Your task to perform on an android device: install app "LiveIn - Share Your Moment" Image 0: 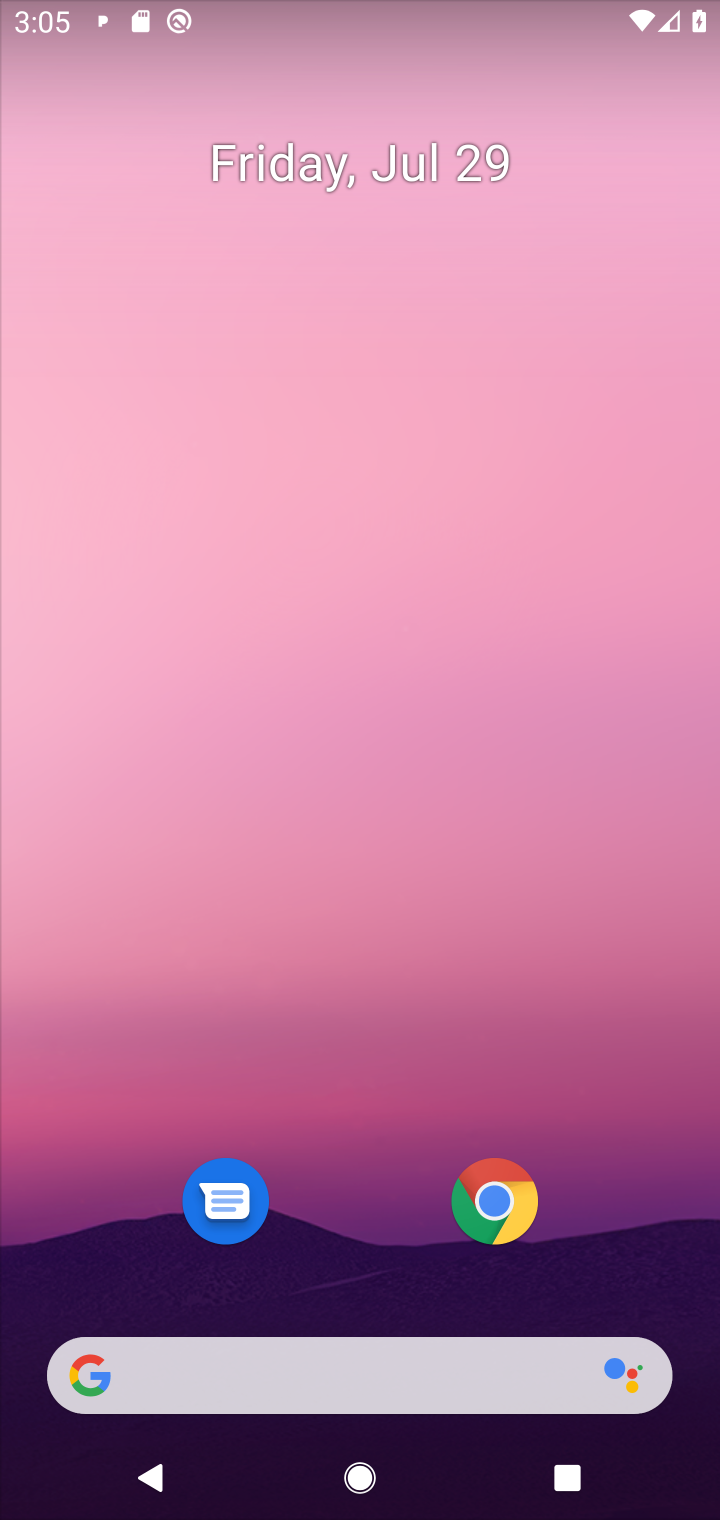
Step 0: drag from (404, 1112) to (394, 514)
Your task to perform on an android device: install app "LiveIn - Share Your Moment" Image 1: 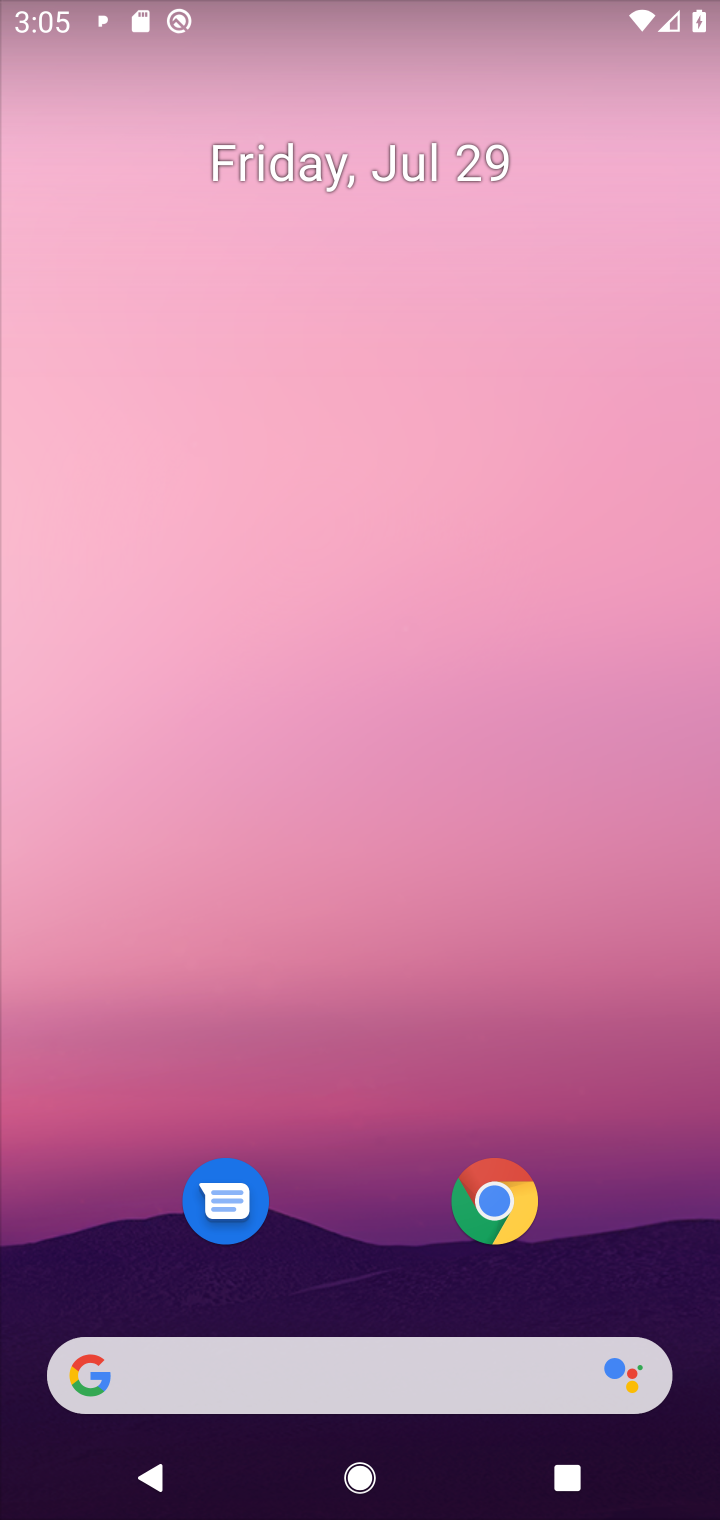
Step 1: drag from (479, 369) to (479, 298)
Your task to perform on an android device: install app "LiveIn - Share Your Moment" Image 2: 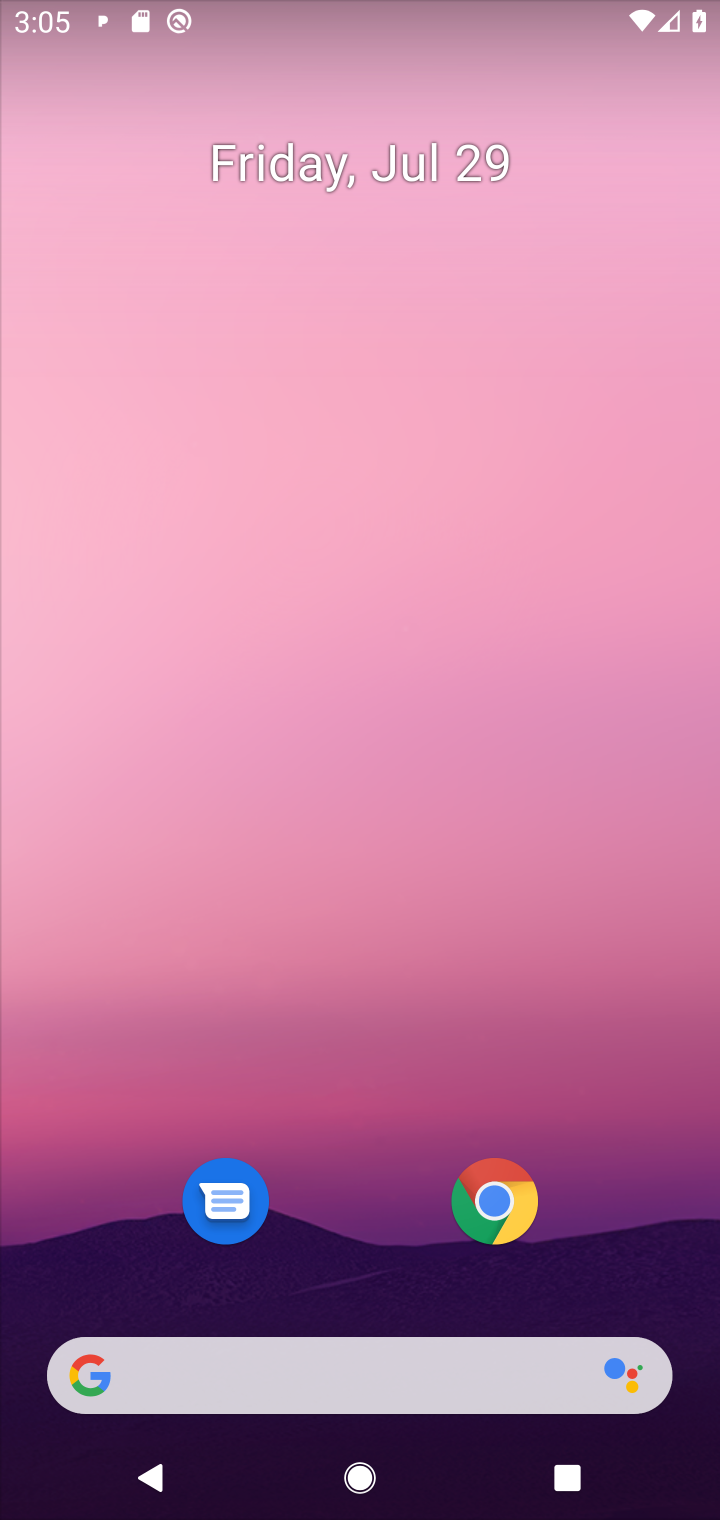
Step 2: drag from (440, 1026) to (410, 58)
Your task to perform on an android device: install app "LiveIn - Share Your Moment" Image 3: 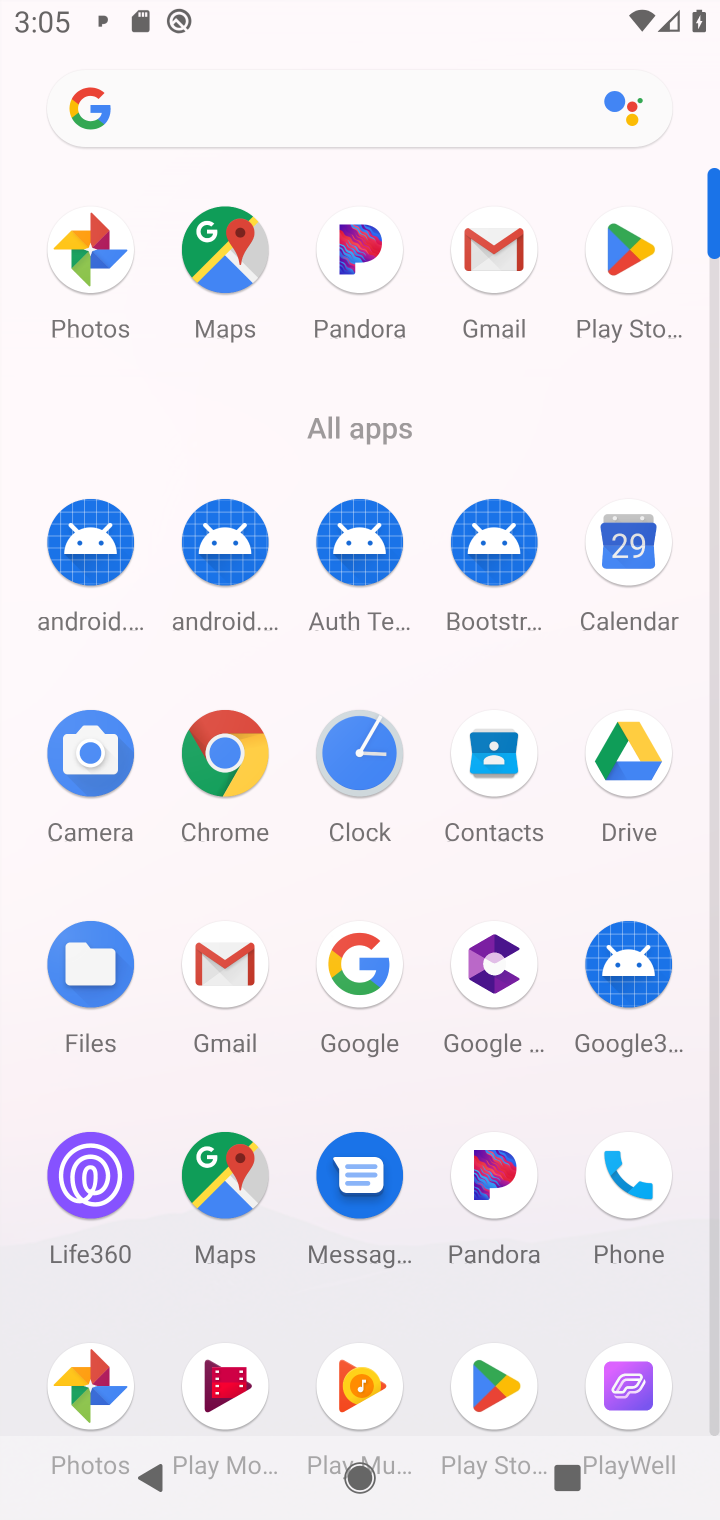
Step 3: click (616, 241)
Your task to perform on an android device: install app "LiveIn - Share Your Moment" Image 4: 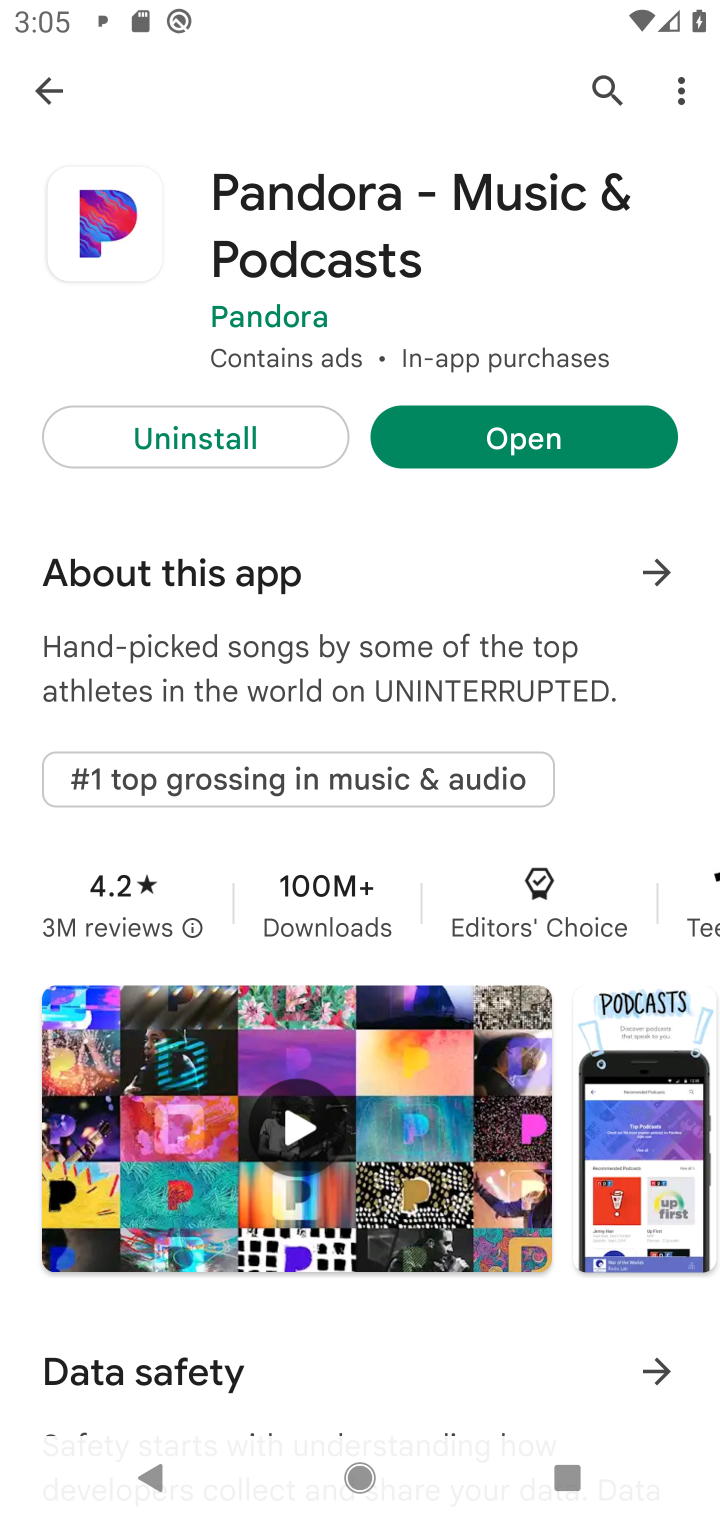
Step 4: click (594, 84)
Your task to perform on an android device: install app "LiveIn - Share Your Moment" Image 5: 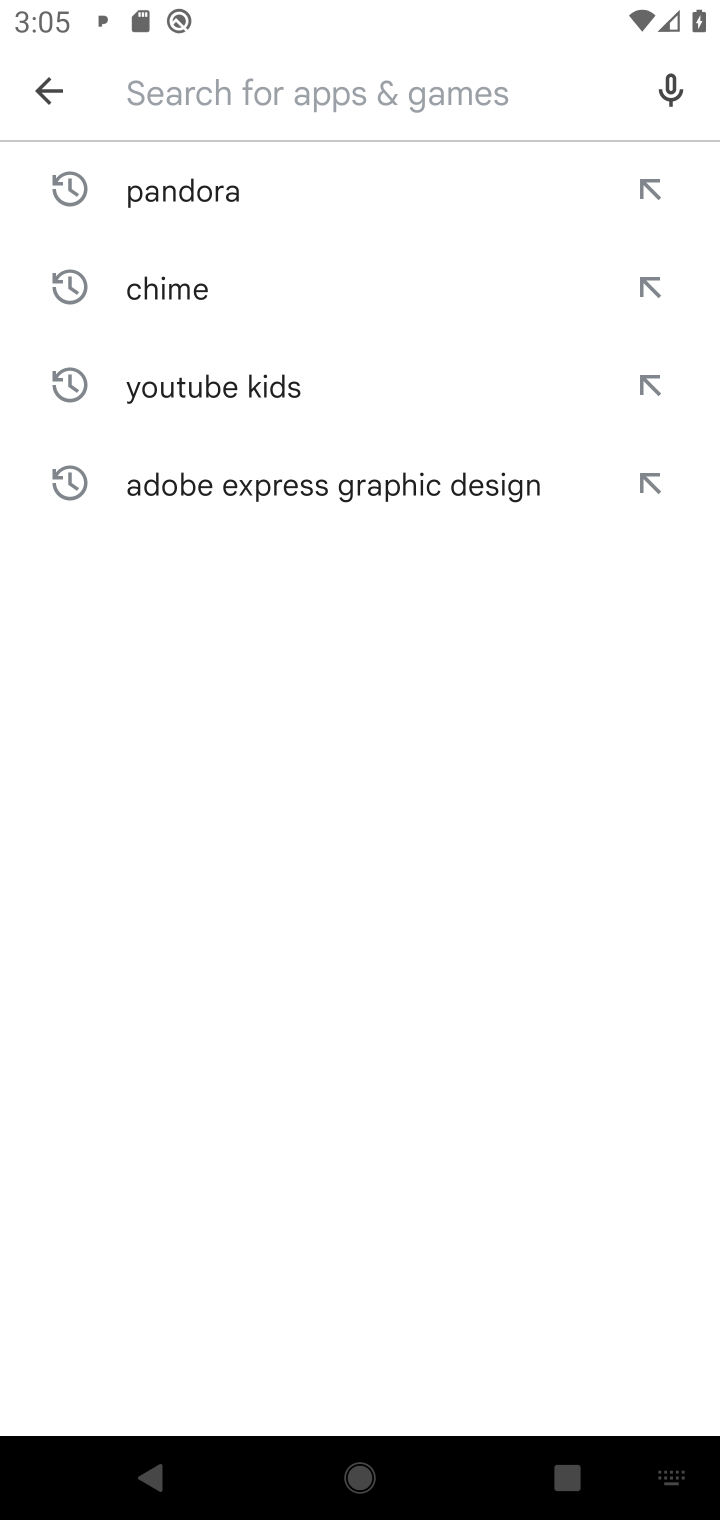
Step 5: type "LiveIn"
Your task to perform on an android device: install app "LiveIn - Share Your Moment" Image 6: 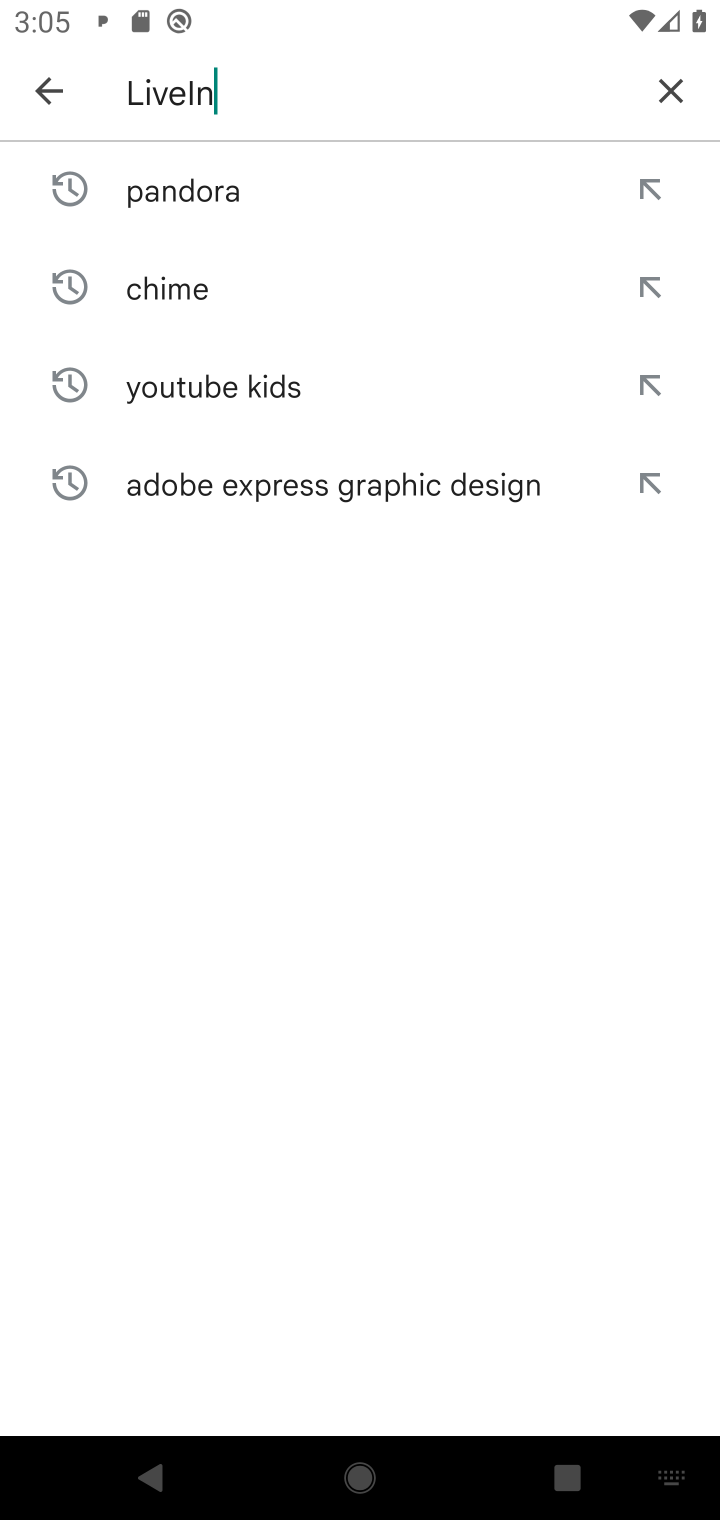
Step 6: type ""
Your task to perform on an android device: install app "LiveIn - Share Your Moment" Image 7: 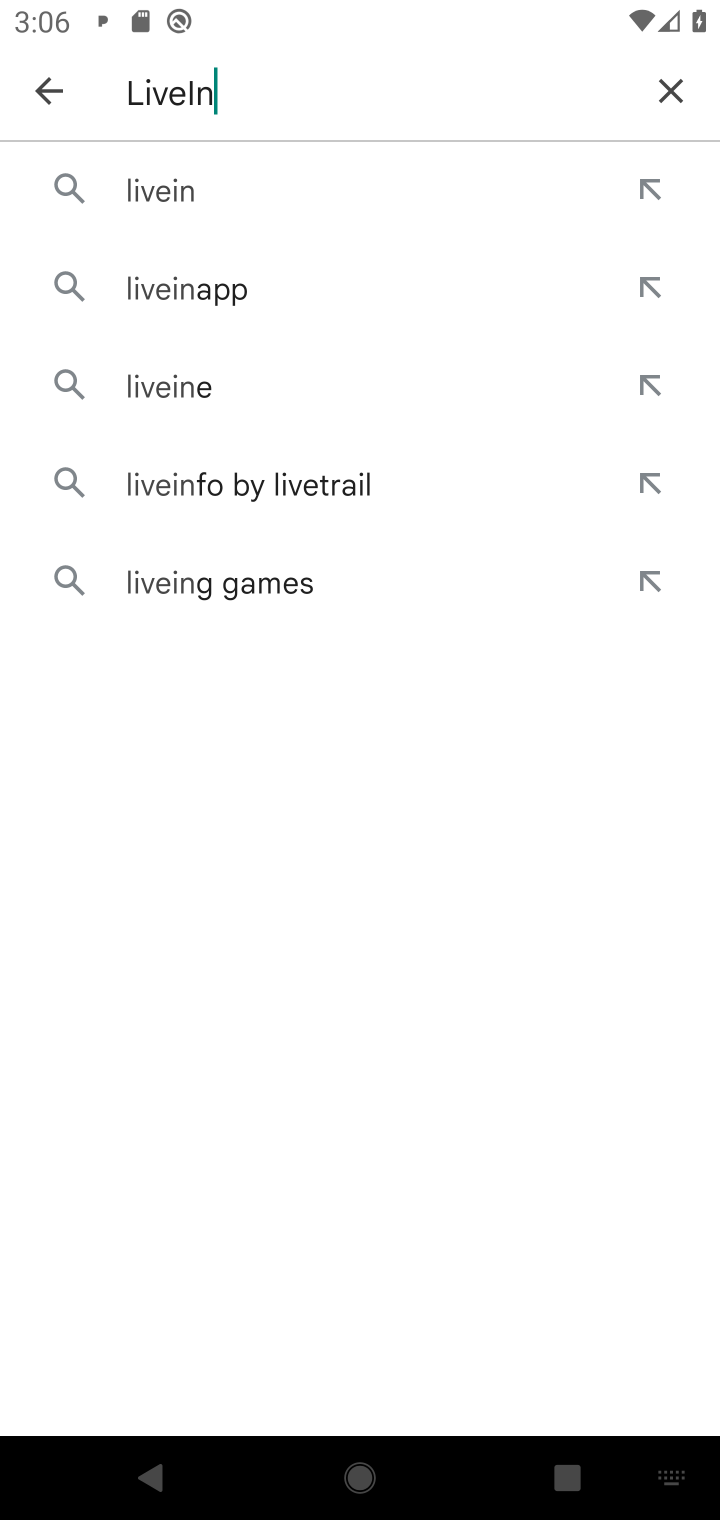
Step 7: click (154, 190)
Your task to perform on an android device: install app "LiveIn - Share Your Moment" Image 8: 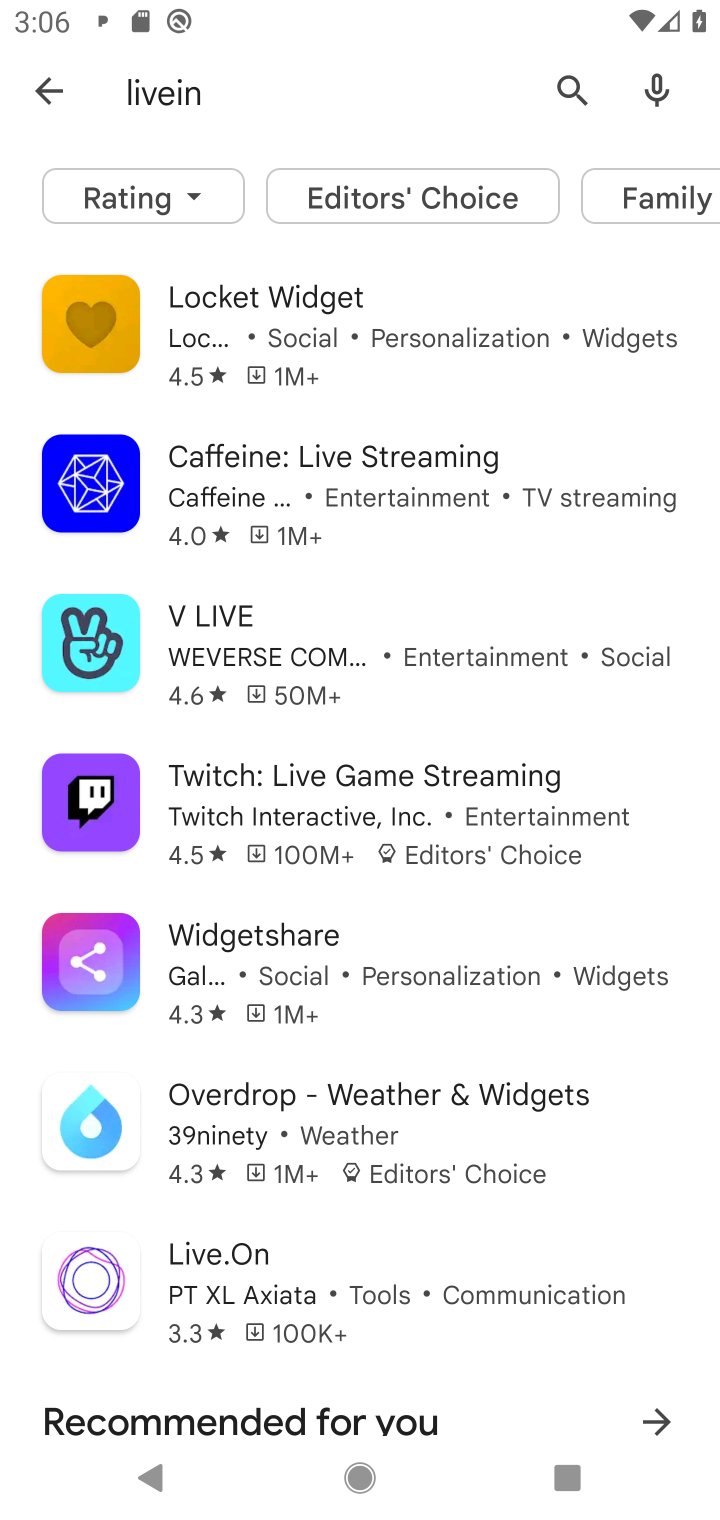
Step 8: task complete